Your task to perform on an android device: Open Chrome and go to settings Image 0: 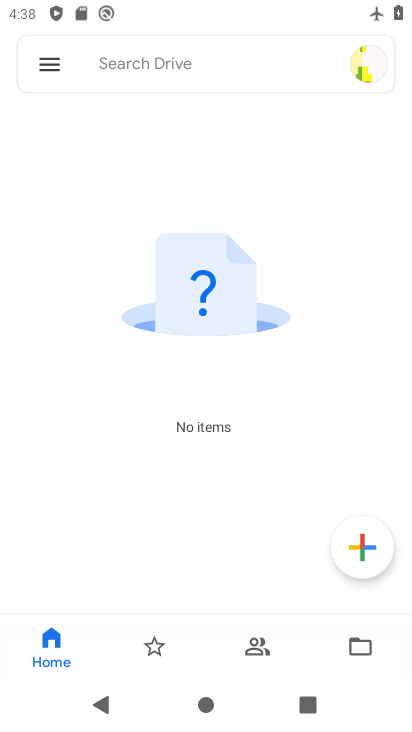
Step 0: press home button
Your task to perform on an android device: Open Chrome and go to settings Image 1: 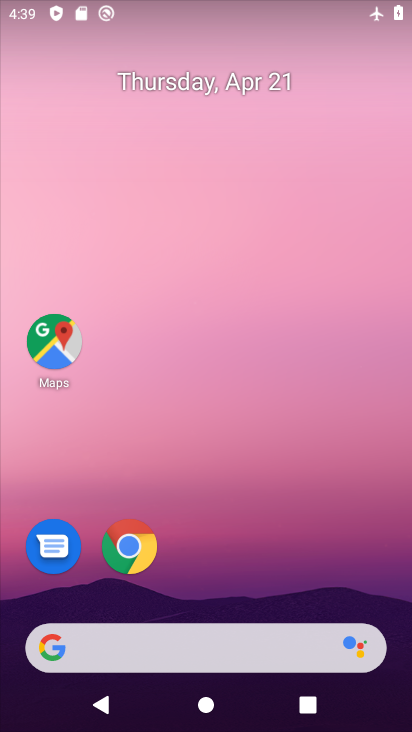
Step 1: click (132, 535)
Your task to perform on an android device: Open Chrome and go to settings Image 2: 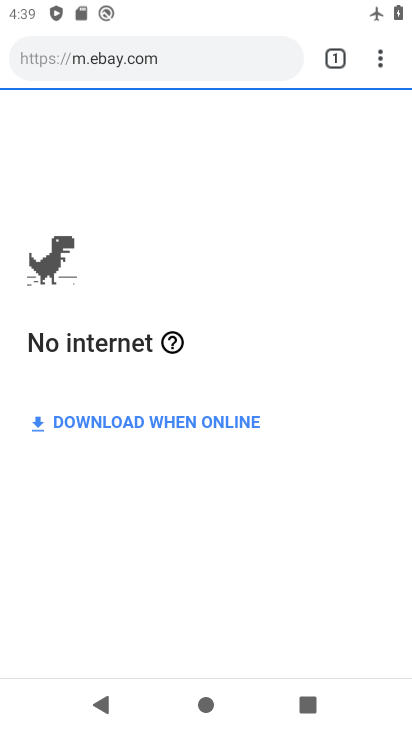
Step 2: click (380, 60)
Your task to perform on an android device: Open Chrome and go to settings Image 3: 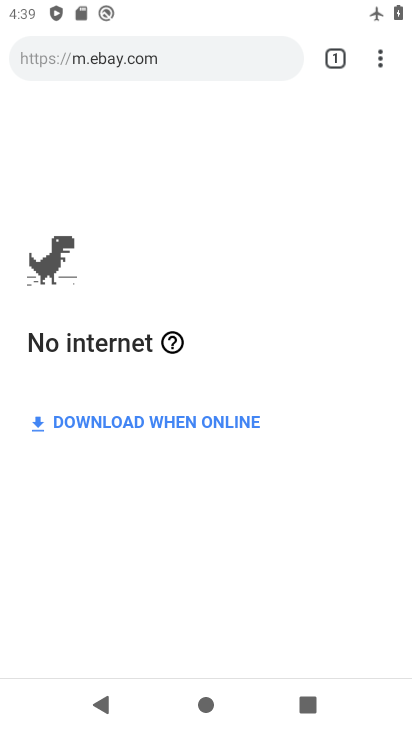
Step 3: click (380, 60)
Your task to perform on an android device: Open Chrome and go to settings Image 4: 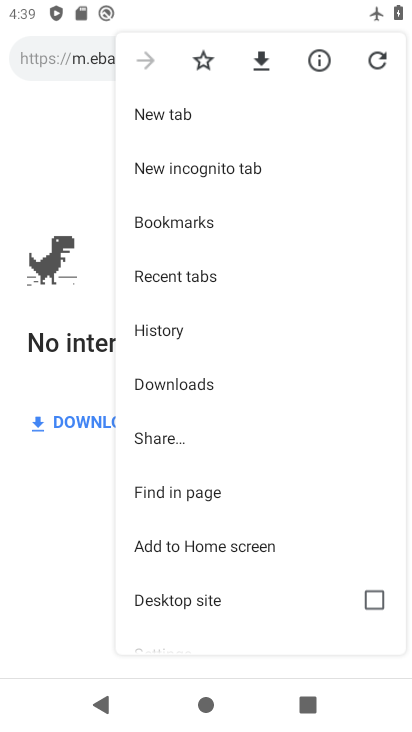
Step 4: drag from (173, 592) to (200, 350)
Your task to perform on an android device: Open Chrome and go to settings Image 5: 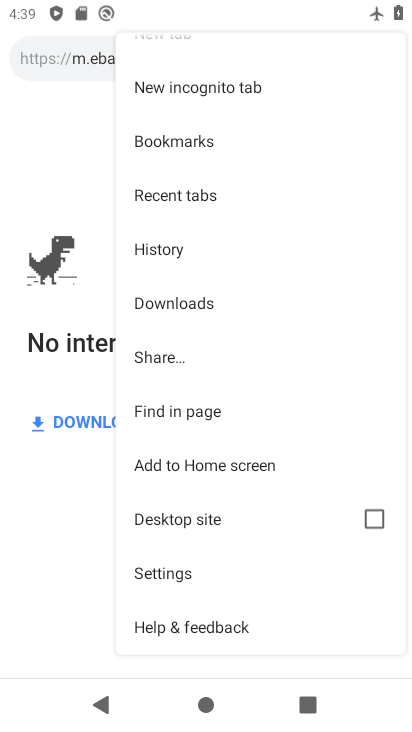
Step 5: click (176, 564)
Your task to perform on an android device: Open Chrome and go to settings Image 6: 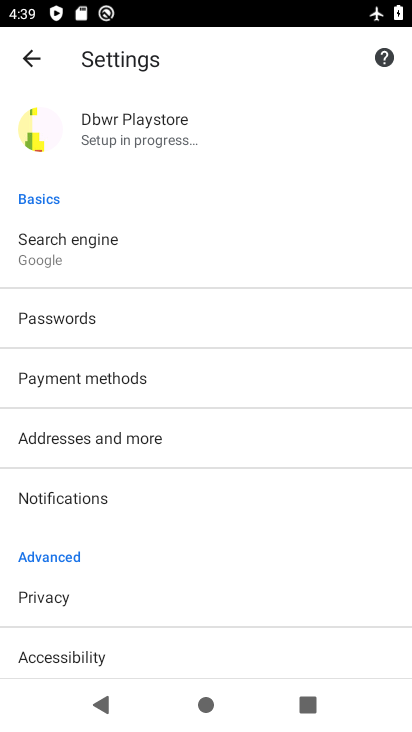
Step 6: task complete